Your task to perform on an android device: refresh tabs in the chrome app Image 0: 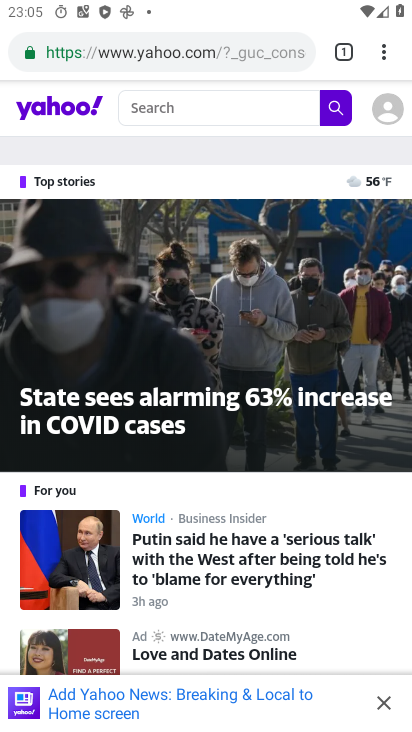
Step 0: press home button
Your task to perform on an android device: refresh tabs in the chrome app Image 1: 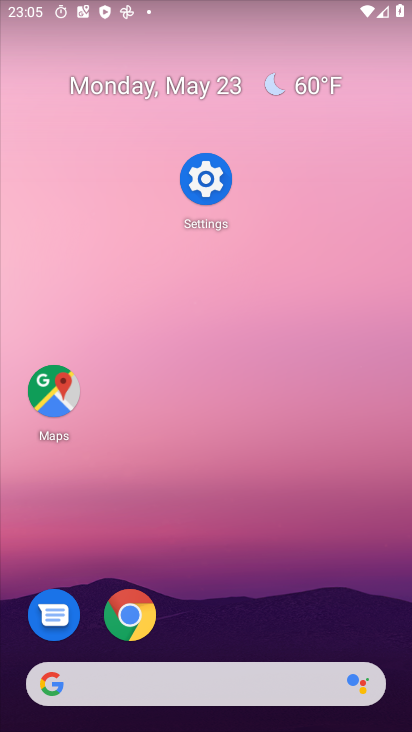
Step 1: click (146, 607)
Your task to perform on an android device: refresh tabs in the chrome app Image 2: 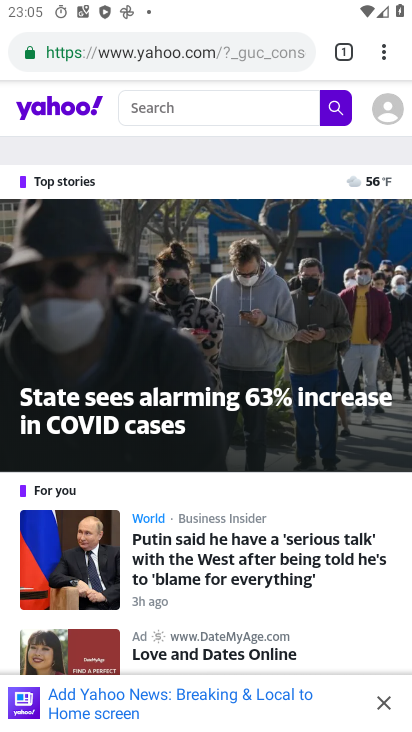
Step 2: click (373, 57)
Your task to perform on an android device: refresh tabs in the chrome app Image 3: 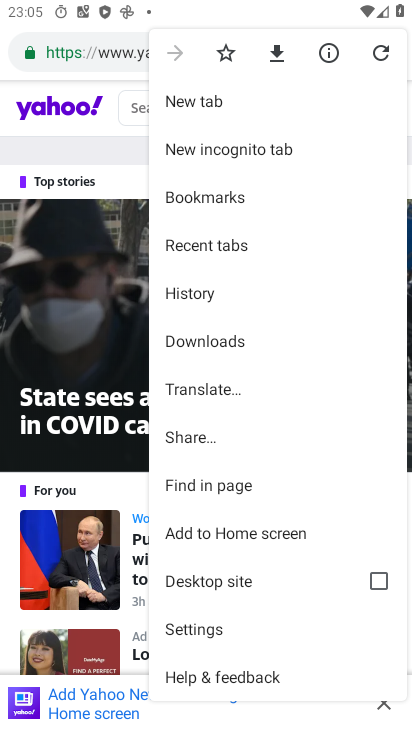
Step 3: click (376, 49)
Your task to perform on an android device: refresh tabs in the chrome app Image 4: 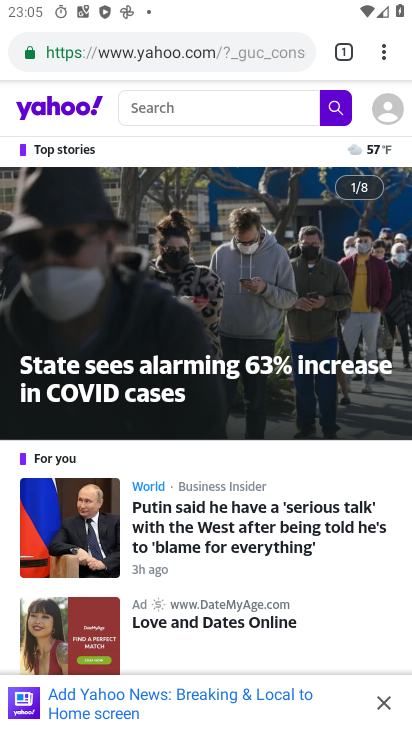
Step 4: task complete